Your task to perform on an android device: turn off wifi Image 0: 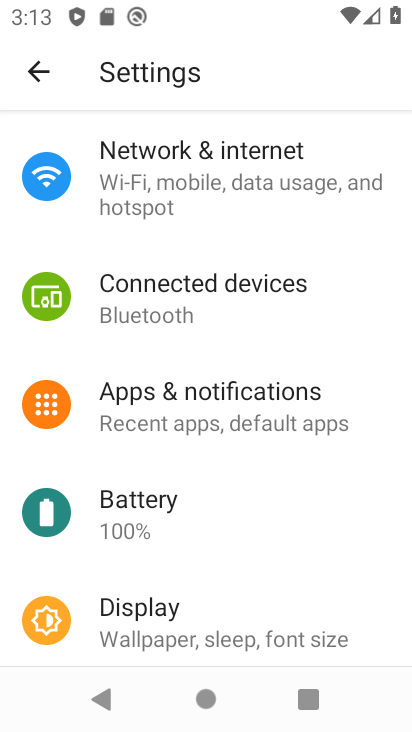
Step 0: click (172, 172)
Your task to perform on an android device: turn off wifi Image 1: 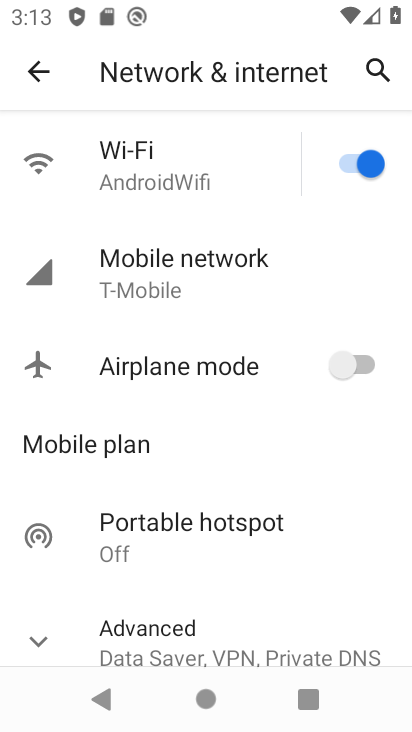
Step 1: click (186, 184)
Your task to perform on an android device: turn off wifi Image 2: 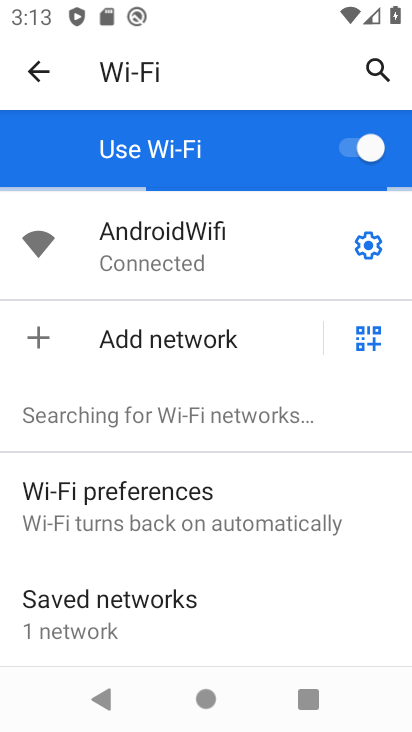
Step 2: click (365, 164)
Your task to perform on an android device: turn off wifi Image 3: 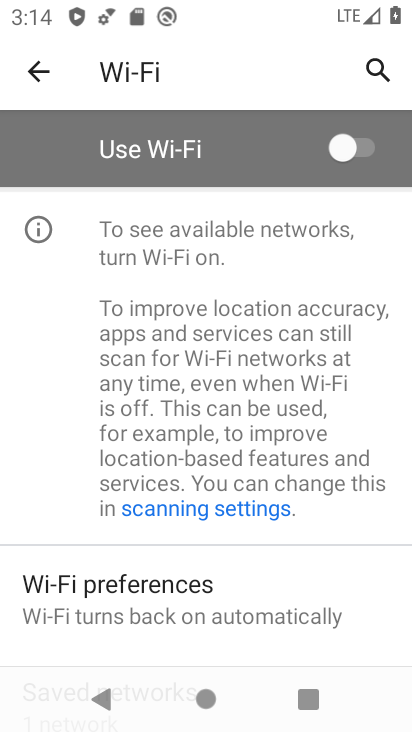
Step 3: task complete